Your task to perform on an android device: toggle show notifications on the lock screen Image 0: 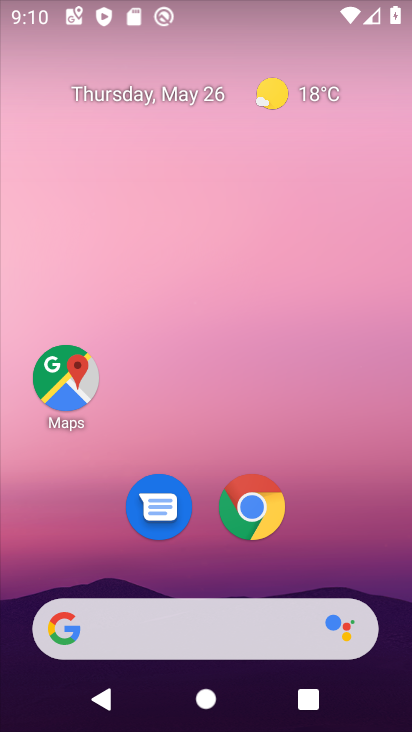
Step 0: press home button
Your task to perform on an android device: toggle show notifications on the lock screen Image 1: 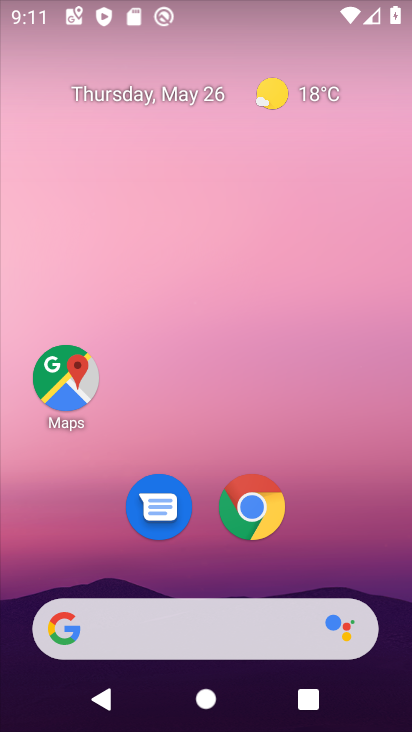
Step 1: drag from (286, 663) to (231, 245)
Your task to perform on an android device: toggle show notifications on the lock screen Image 2: 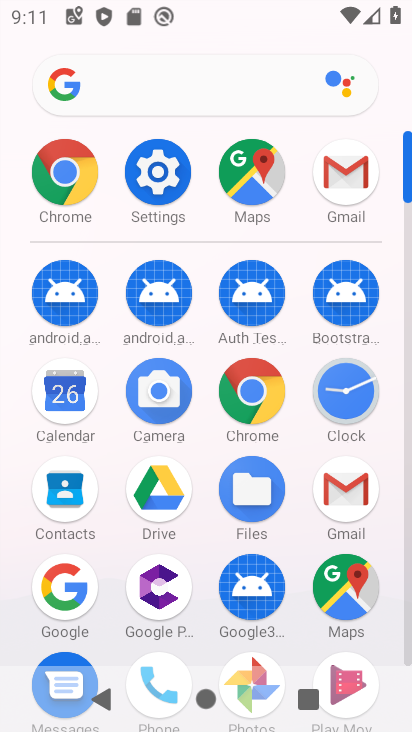
Step 2: click (158, 193)
Your task to perform on an android device: toggle show notifications on the lock screen Image 3: 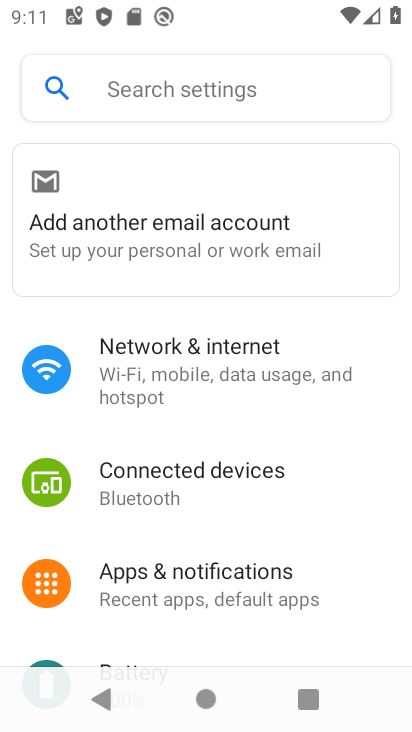
Step 3: click (170, 108)
Your task to perform on an android device: toggle show notifications on the lock screen Image 4: 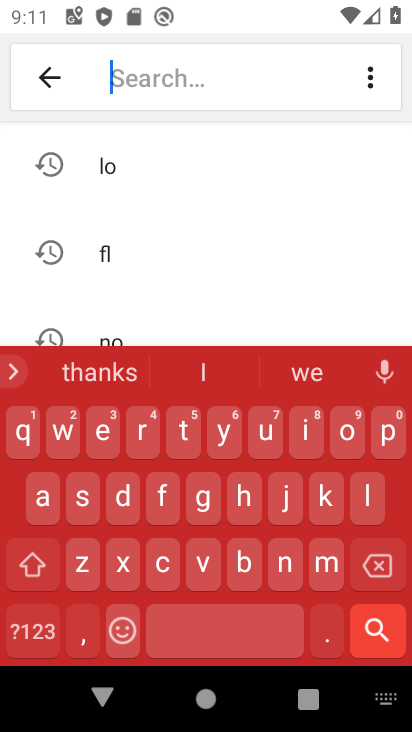
Step 4: click (128, 177)
Your task to perform on an android device: toggle show notifications on the lock screen Image 5: 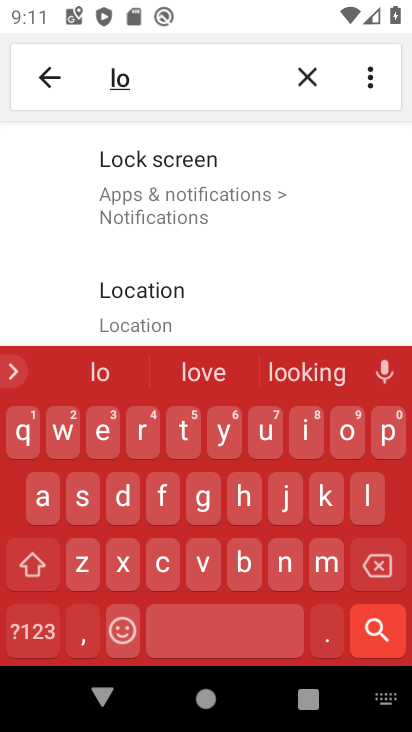
Step 5: click (201, 294)
Your task to perform on an android device: toggle show notifications on the lock screen Image 6: 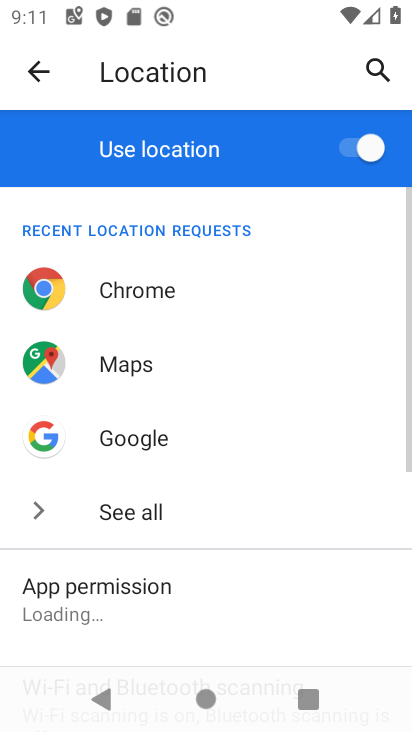
Step 6: click (25, 72)
Your task to perform on an android device: toggle show notifications on the lock screen Image 7: 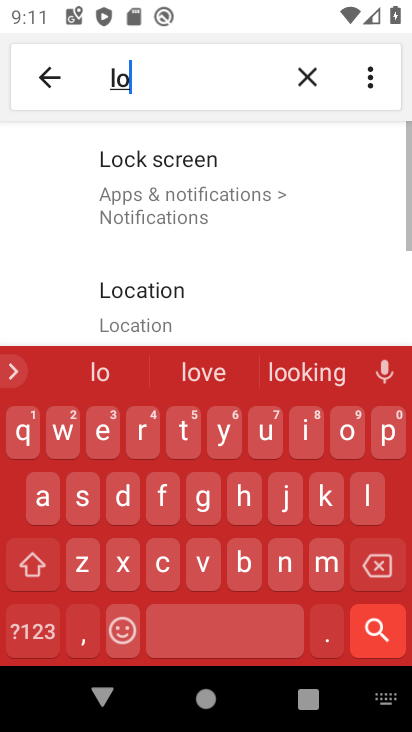
Step 7: click (25, 71)
Your task to perform on an android device: toggle show notifications on the lock screen Image 8: 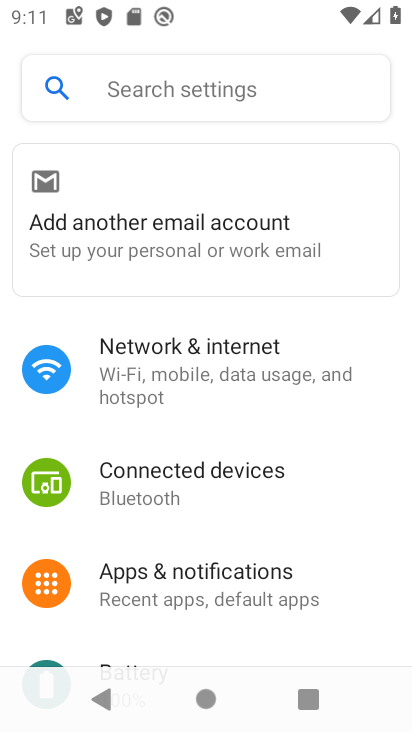
Step 8: click (173, 89)
Your task to perform on an android device: toggle show notifications on the lock screen Image 9: 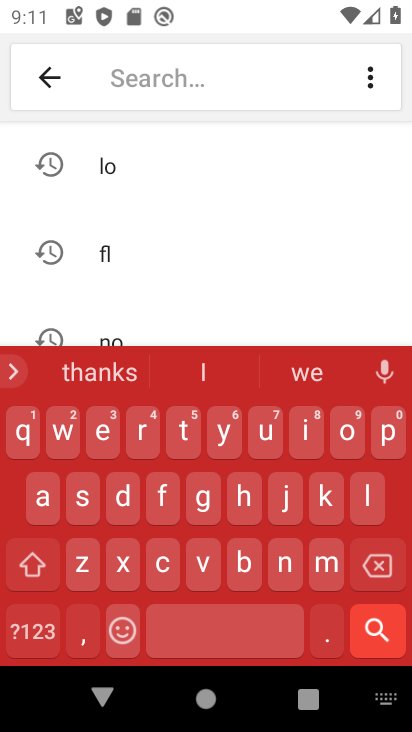
Step 9: click (283, 567)
Your task to perform on an android device: toggle show notifications on the lock screen Image 10: 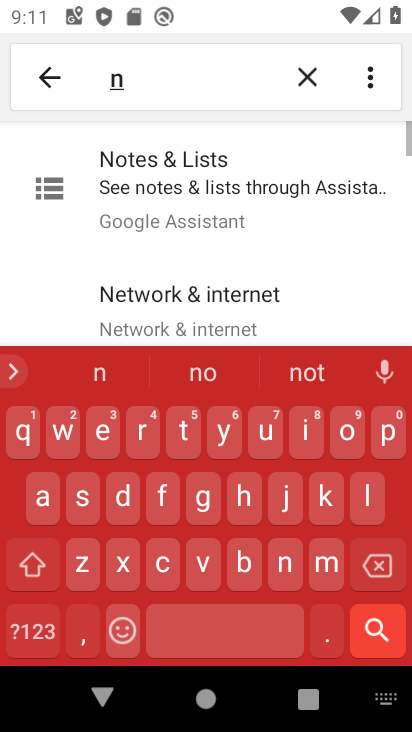
Step 10: click (349, 446)
Your task to perform on an android device: toggle show notifications on the lock screen Image 11: 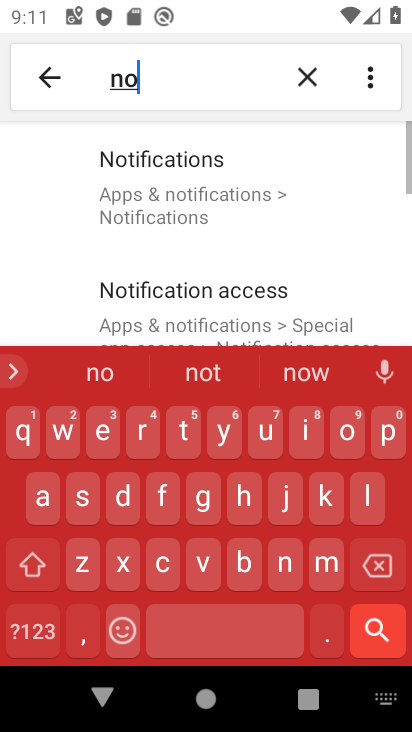
Step 11: click (183, 196)
Your task to perform on an android device: toggle show notifications on the lock screen Image 12: 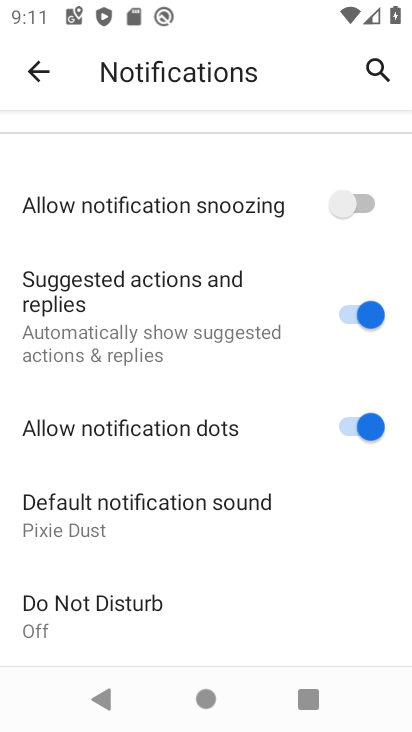
Step 12: task complete